Your task to perform on an android device: turn off improve location accuracy Image 0: 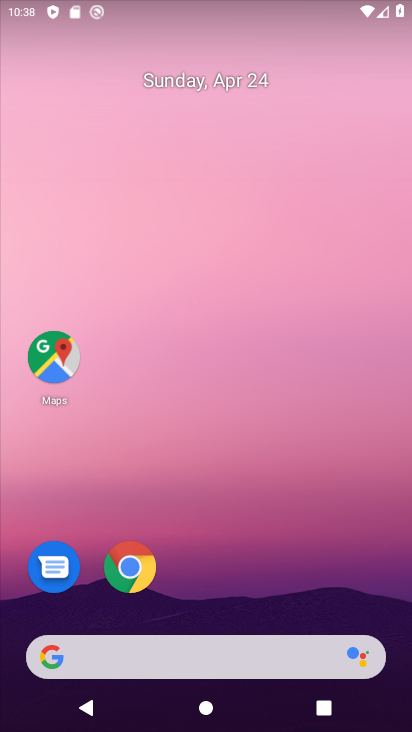
Step 0: drag from (319, 506) to (299, 39)
Your task to perform on an android device: turn off improve location accuracy Image 1: 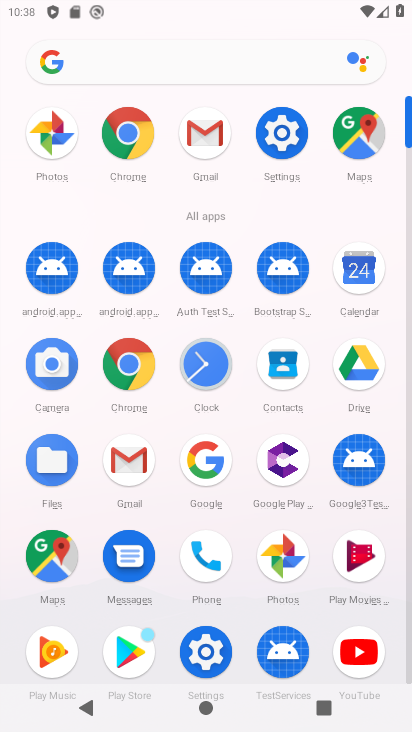
Step 1: click (203, 653)
Your task to perform on an android device: turn off improve location accuracy Image 2: 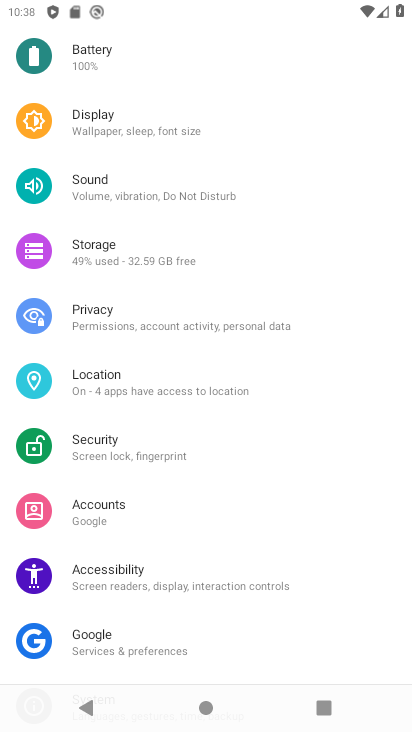
Step 2: click (97, 367)
Your task to perform on an android device: turn off improve location accuracy Image 3: 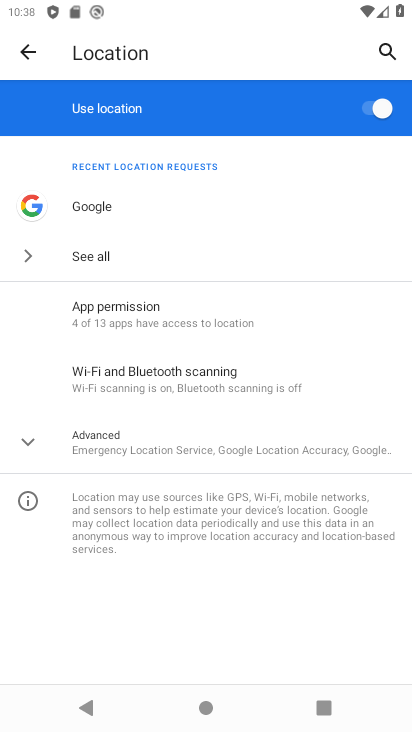
Step 3: click (110, 430)
Your task to perform on an android device: turn off improve location accuracy Image 4: 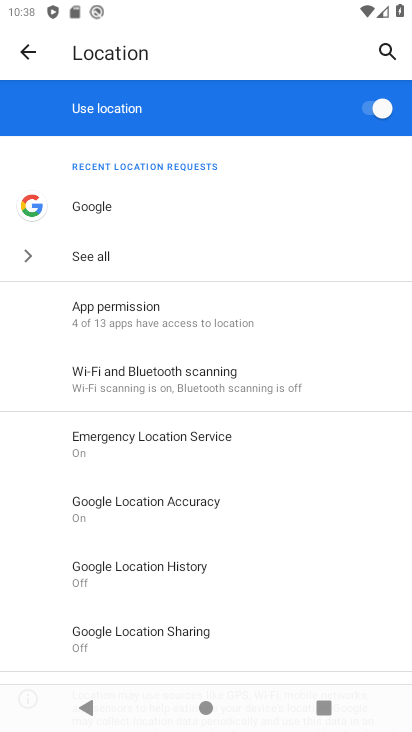
Step 4: drag from (208, 483) to (218, 445)
Your task to perform on an android device: turn off improve location accuracy Image 5: 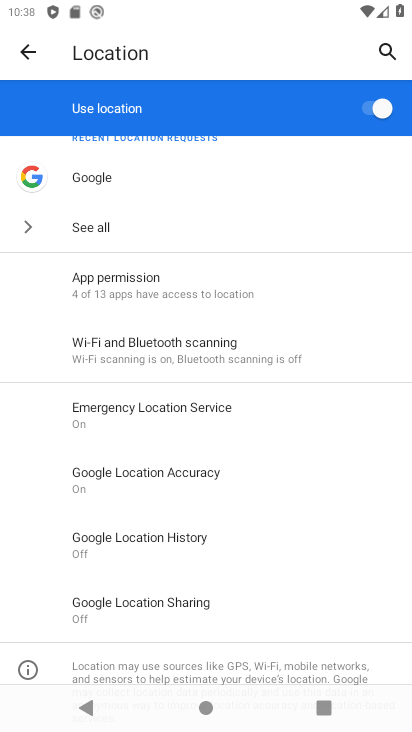
Step 5: click (165, 479)
Your task to perform on an android device: turn off improve location accuracy Image 6: 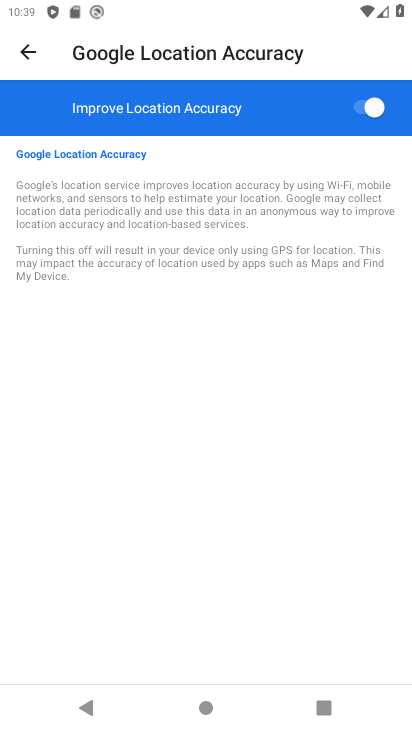
Step 6: task complete